Your task to perform on an android device: change your default location settings in chrome Image 0: 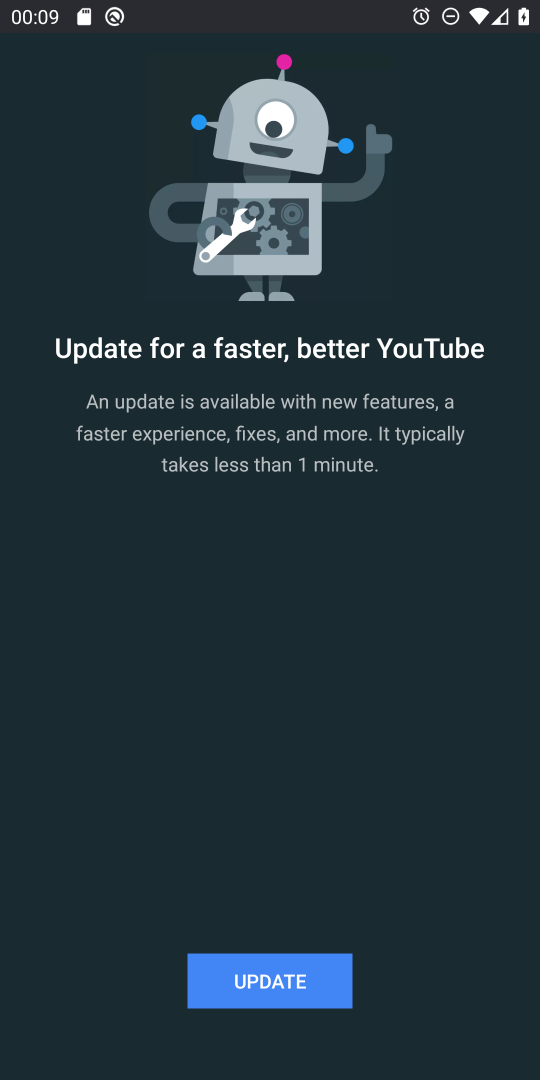
Step 0: press home button
Your task to perform on an android device: change your default location settings in chrome Image 1: 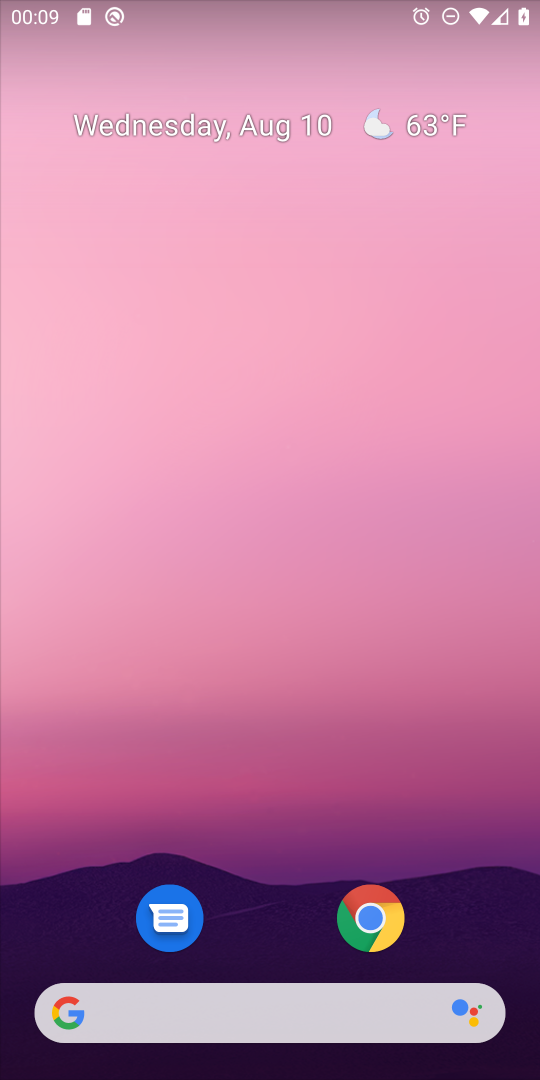
Step 1: drag from (366, 767) to (241, 12)
Your task to perform on an android device: change your default location settings in chrome Image 2: 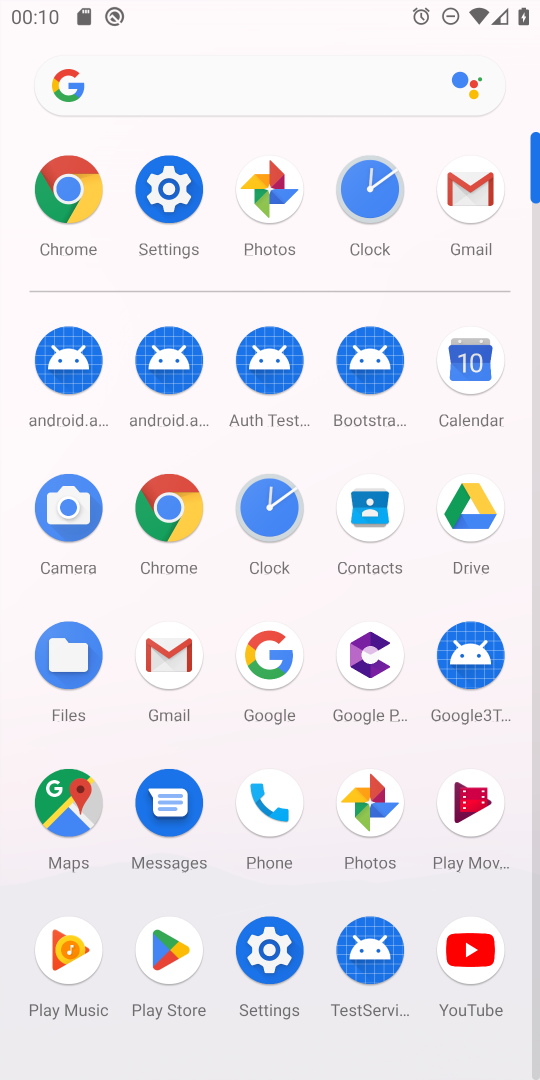
Step 2: click (182, 507)
Your task to perform on an android device: change your default location settings in chrome Image 3: 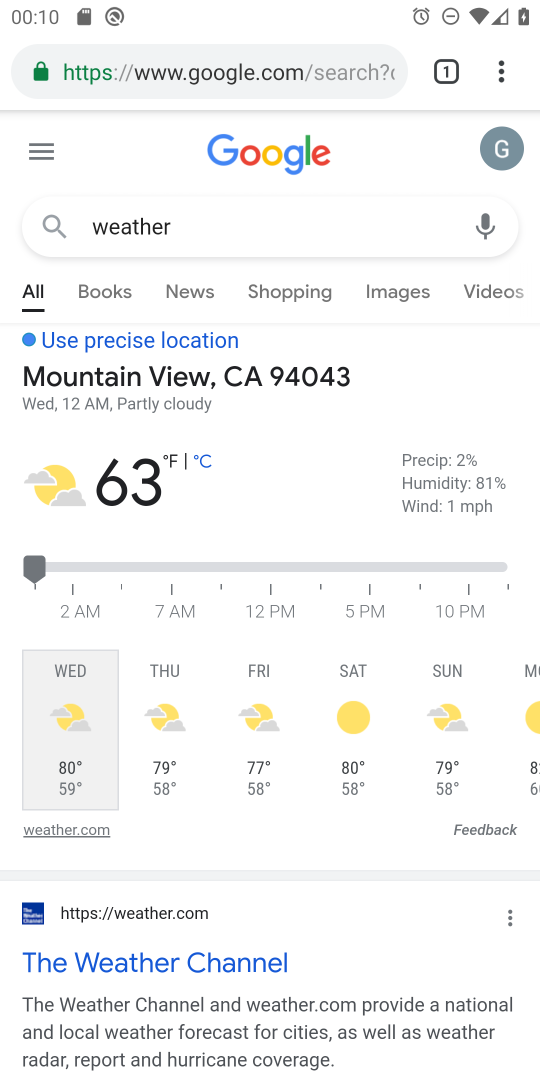
Step 3: drag from (512, 63) to (232, 890)
Your task to perform on an android device: change your default location settings in chrome Image 4: 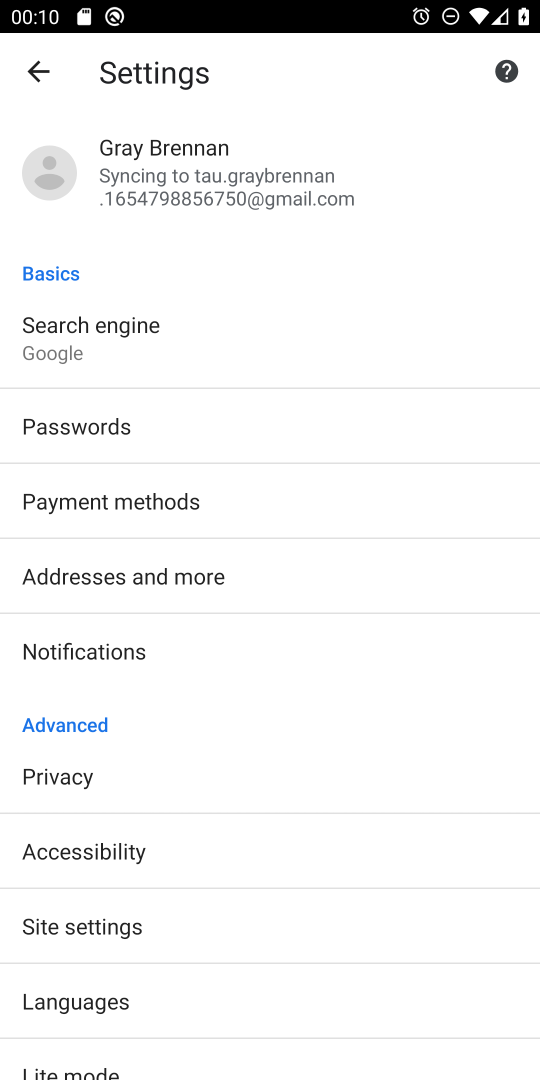
Step 4: click (124, 924)
Your task to perform on an android device: change your default location settings in chrome Image 5: 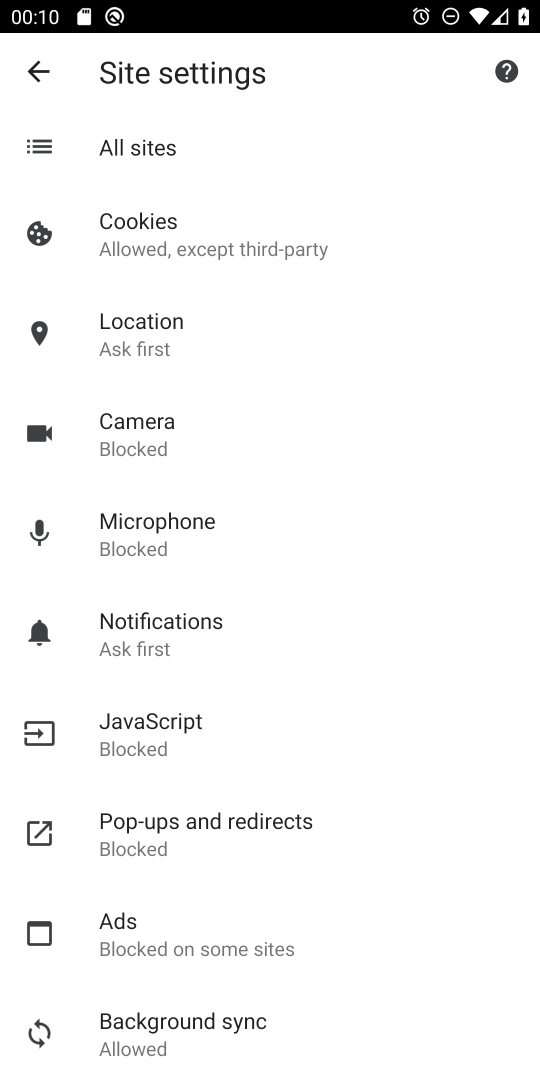
Step 5: click (186, 345)
Your task to perform on an android device: change your default location settings in chrome Image 6: 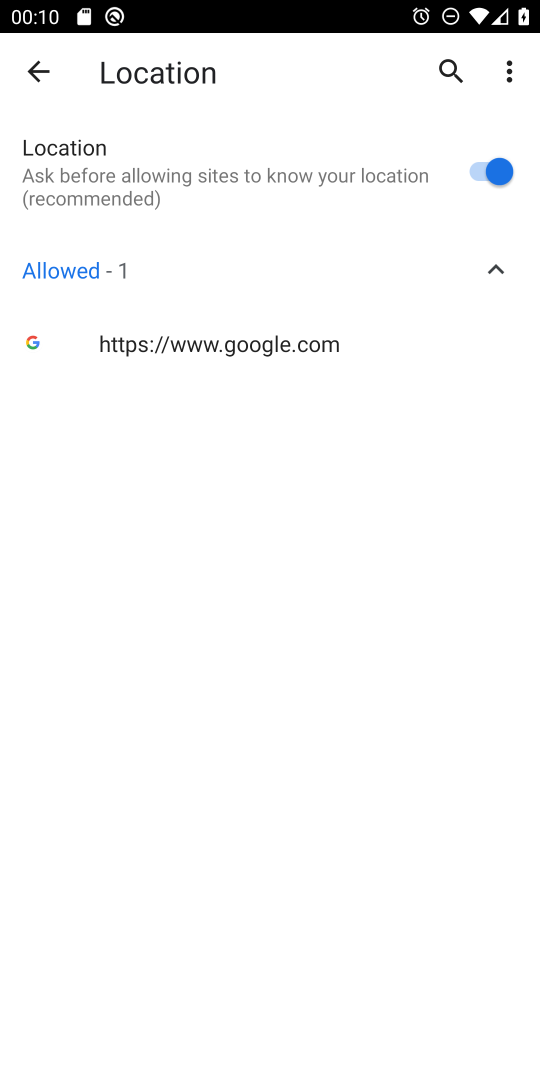
Step 6: click (477, 185)
Your task to perform on an android device: change your default location settings in chrome Image 7: 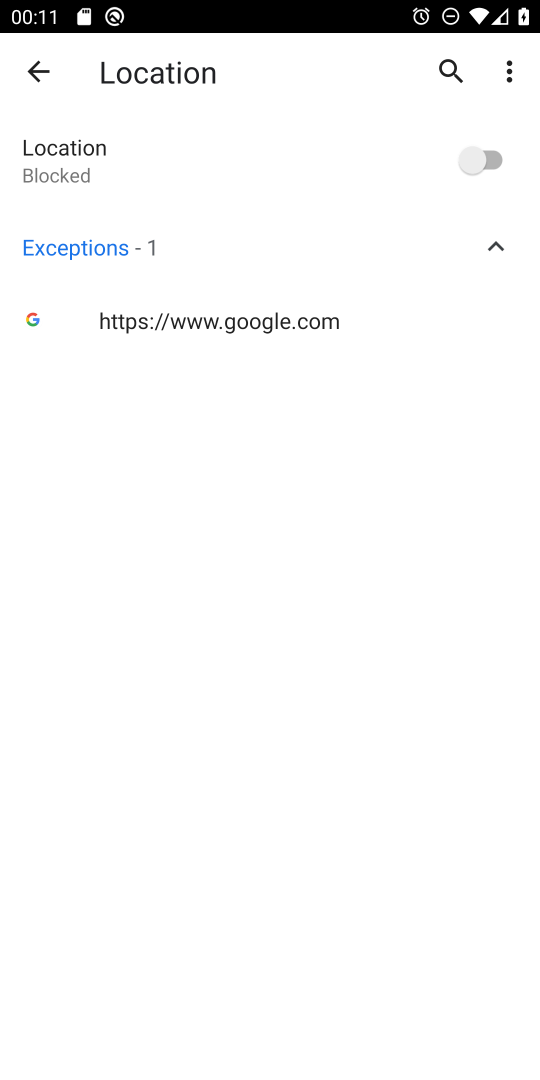
Step 7: task complete